Your task to perform on an android device: Open Google Image 0: 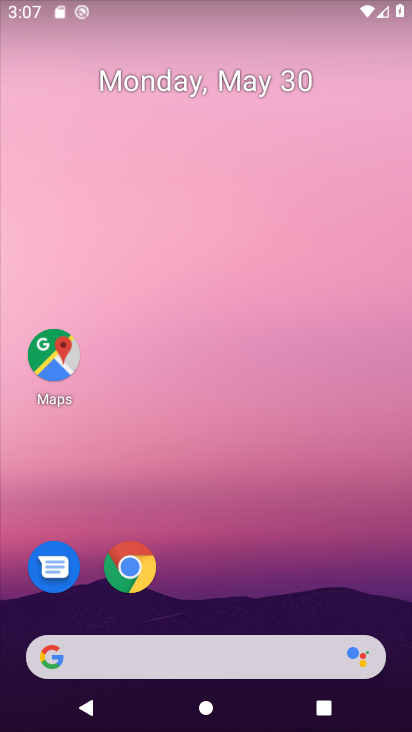
Step 0: drag from (296, 576) to (253, 0)
Your task to perform on an android device: Open Google Image 1: 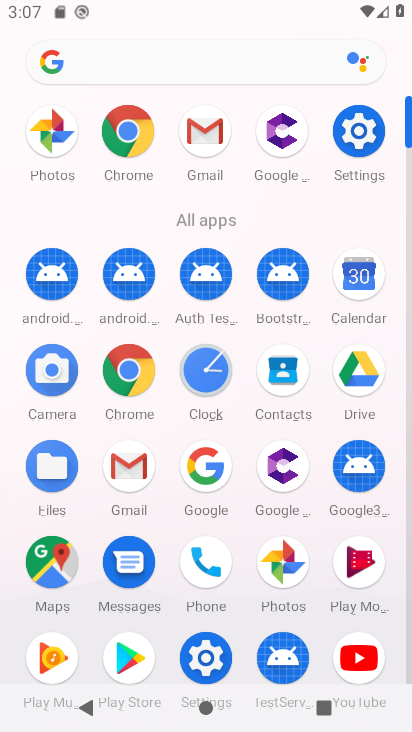
Step 1: click (201, 463)
Your task to perform on an android device: Open Google Image 2: 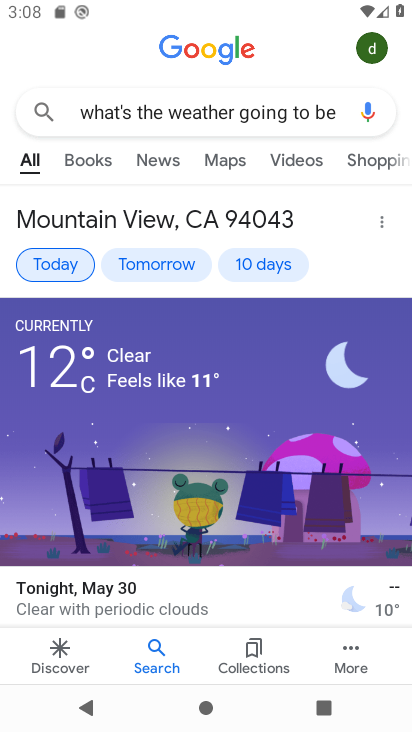
Step 2: task complete